Your task to perform on an android device: add a label to a message in the gmail app Image 0: 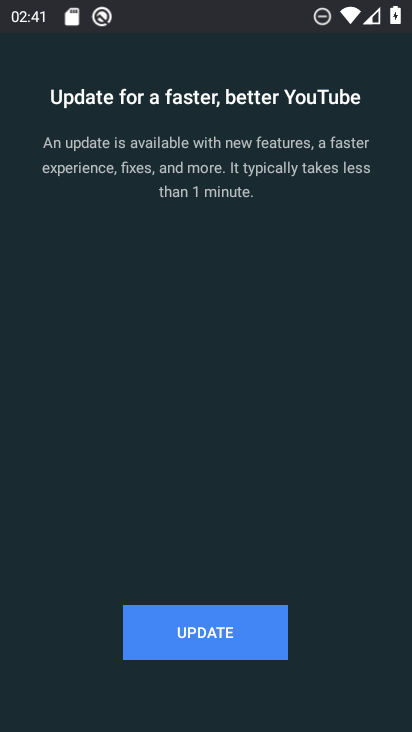
Step 0: press home button
Your task to perform on an android device: add a label to a message in the gmail app Image 1: 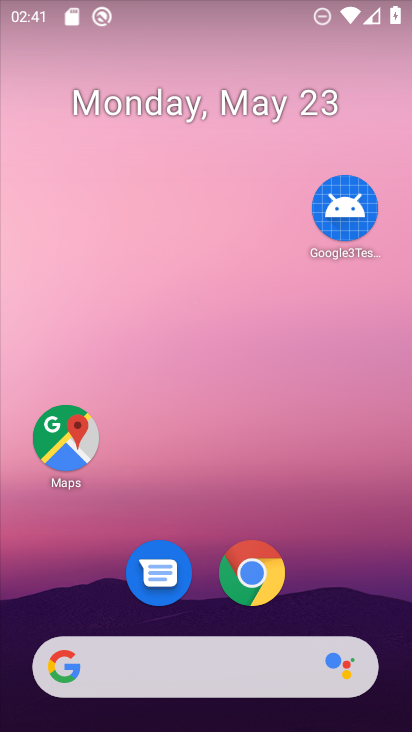
Step 1: drag from (357, 597) to (299, 175)
Your task to perform on an android device: add a label to a message in the gmail app Image 2: 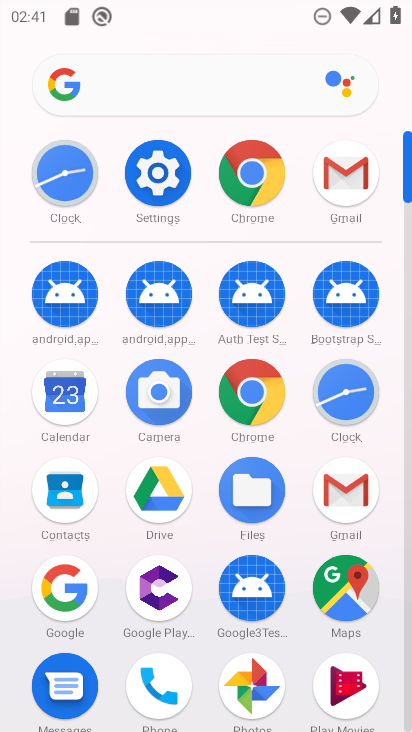
Step 2: click (347, 176)
Your task to perform on an android device: add a label to a message in the gmail app Image 3: 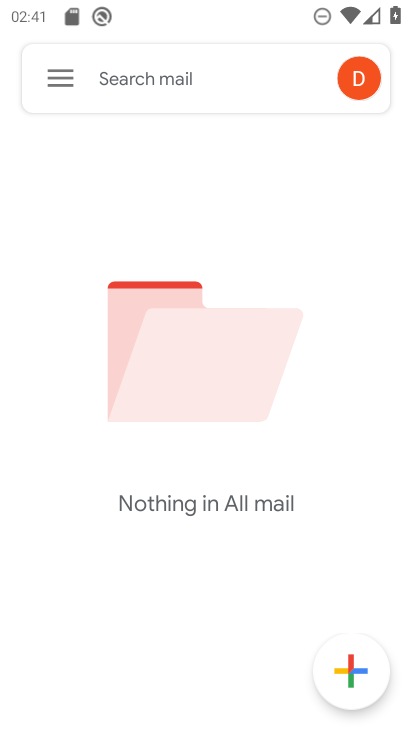
Step 3: click (65, 81)
Your task to perform on an android device: add a label to a message in the gmail app Image 4: 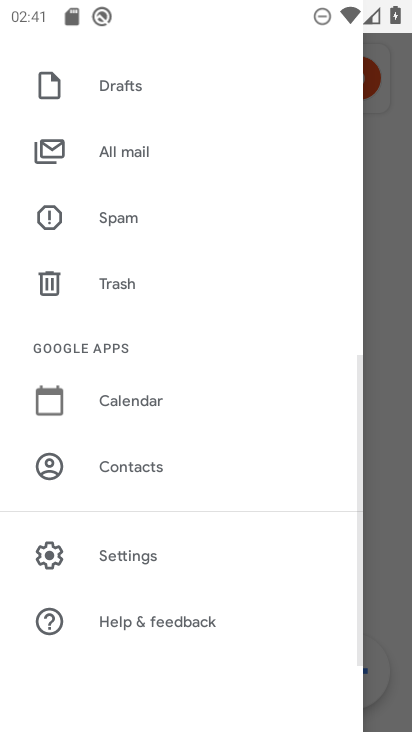
Step 4: click (195, 158)
Your task to perform on an android device: add a label to a message in the gmail app Image 5: 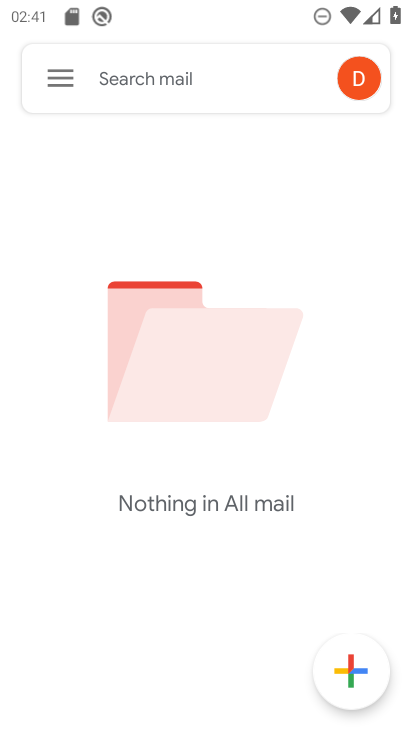
Step 5: task complete